Your task to perform on an android device: star an email in the gmail app Image 0: 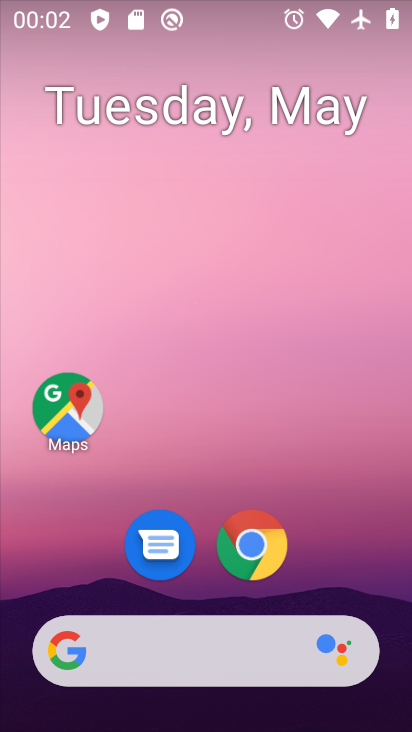
Step 0: drag from (333, 591) to (393, 11)
Your task to perform on an android device: star an email in the gmail app Image 1: 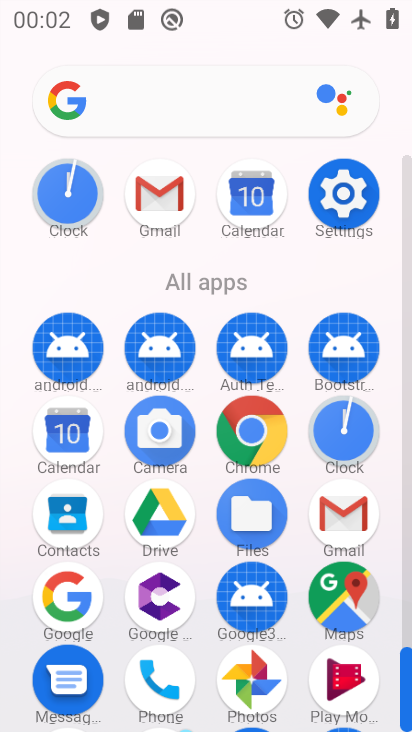
Step 1: click (353, 519)
Your task to perform on an android device: star an email in the gmail app Image 2: 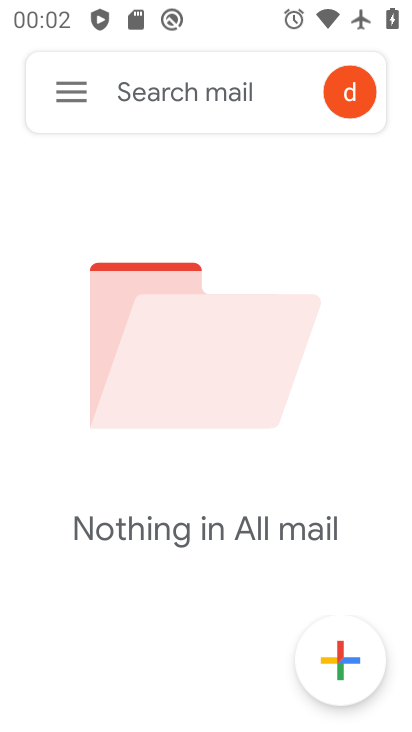
Step 2: click (85, 94)
Your task to perform on an android device: star an email in the gmail app Image 3: 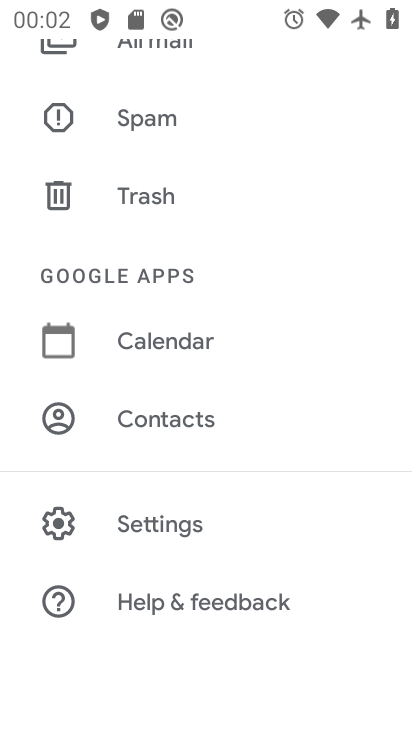
Step 3: drag from (209, 225) to (264, 371)
Your task to perform on an android device: star an email in the gmail app Image 4: 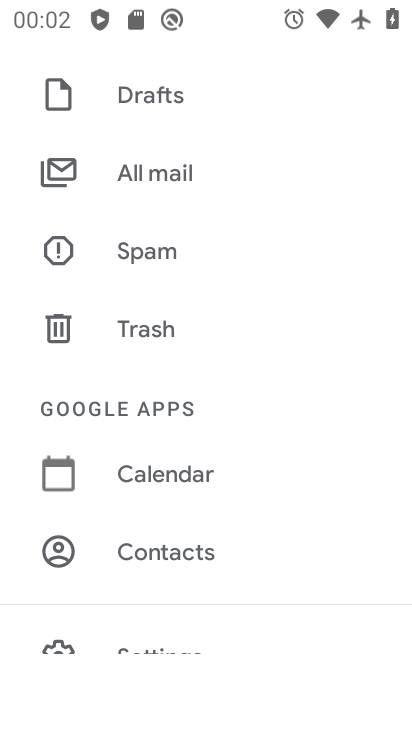
Step 4: click (182, 176)
Your task to perform on an android device: star an email in the gmail app Image 5: 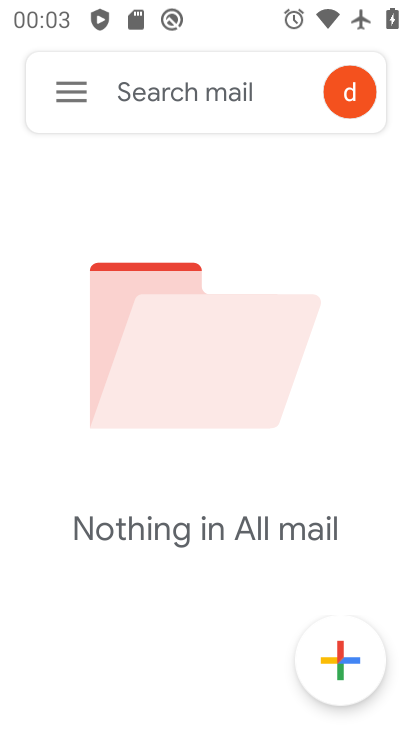
Step 5: task complete